Your task to perform on an android device: Search for Mexican restaurants on Maps Image 0: 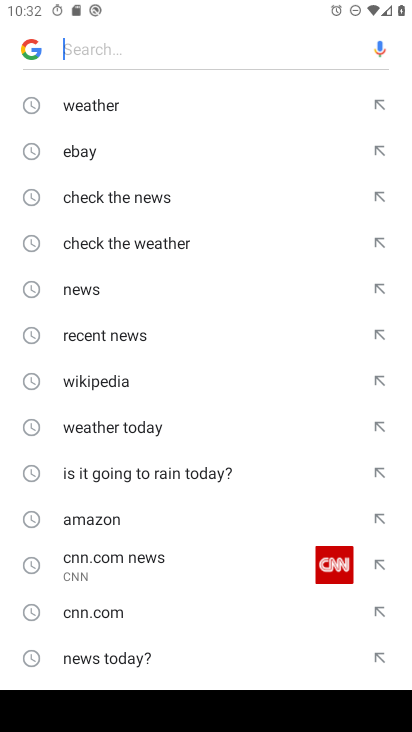
Step 0: press home button
Your task to perform on an android device: Search for Mexican restaurants on Maps Image 1: 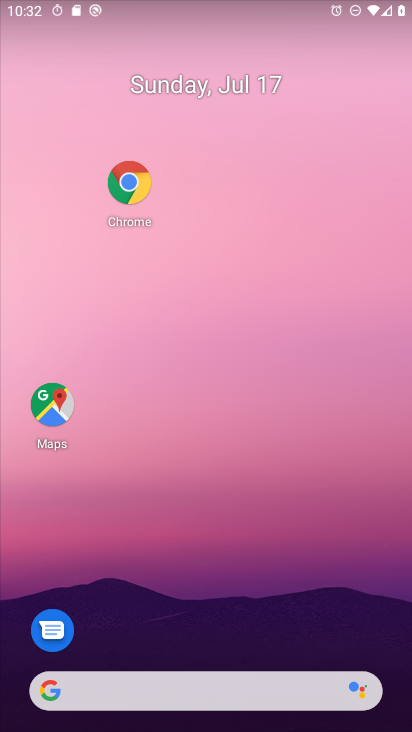
Step 1: drag from (344, 625) to (343, 357)
Your task to perform on an android device: Search for Mexican restaurants on Maps Image 2: 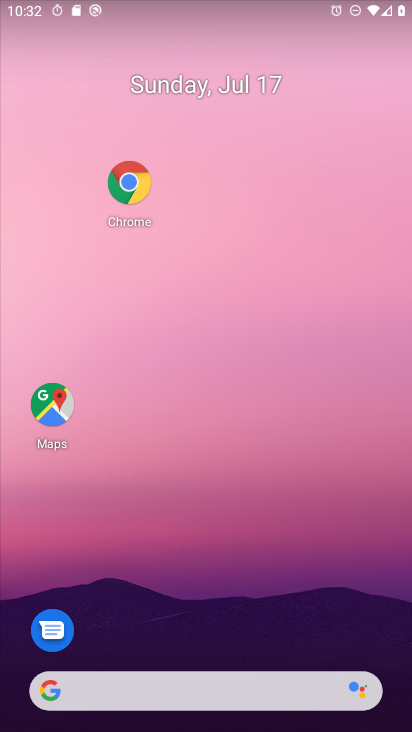
Step 2: click (114, 196)
Your task to perform on an android device: Search for Mexican restaurants on Maps Image 3: 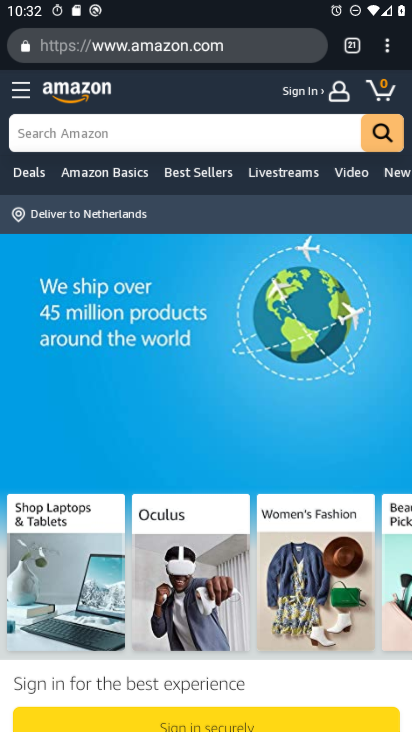
Step 3: click (385, 42)
Your task to perform on an android device: Search for Mexican restaurants on Maps Image 4: 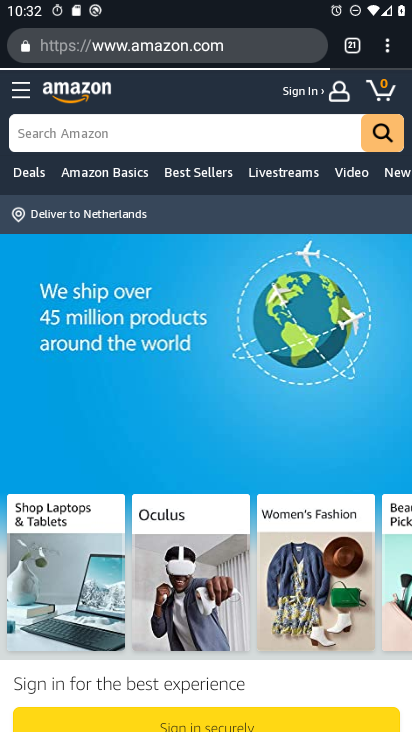
Step 4: press home button
Your task to perform on an android device: Search for Mexican restaurants on Maps Image 5: 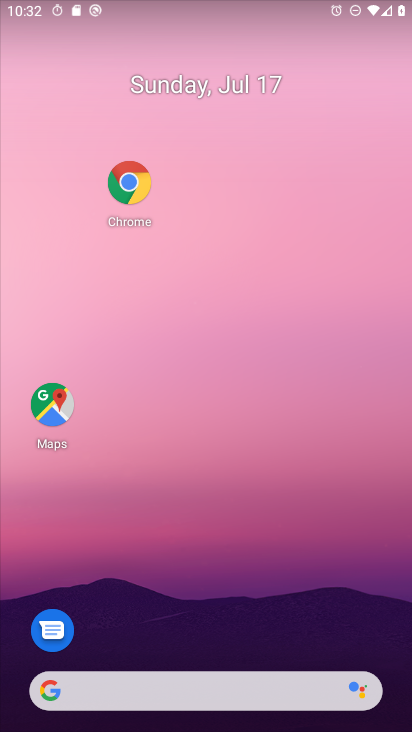
Step 5: drag from (214, 667) to (244, 112)
Your task to perform on an android device: Search for Mexican restaurants on Maps Image 6: 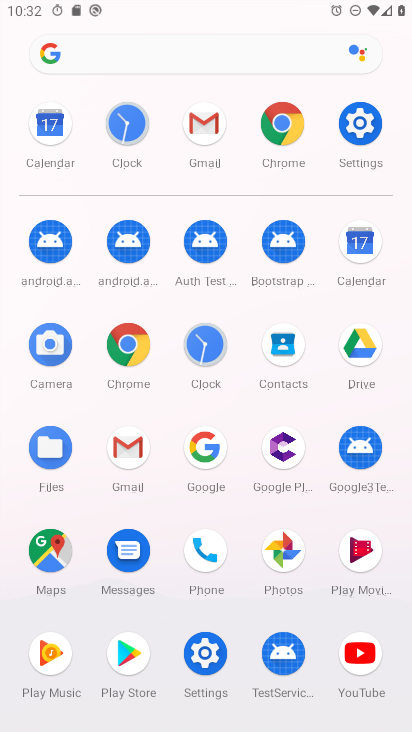
Step 6: click (46, 546)
Your task to perform on an android device: Search for Mexican restaurants on Maps Image 7: 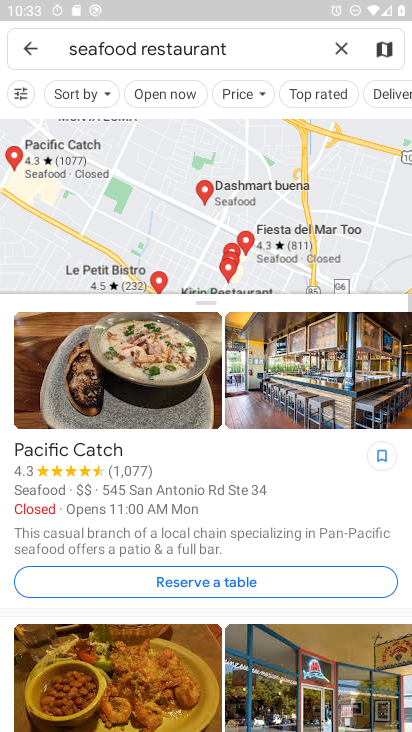
Step 7: click (351, 56)
Your task to perform on an android device: Search for Mexican restaurants on Maps Image 8: 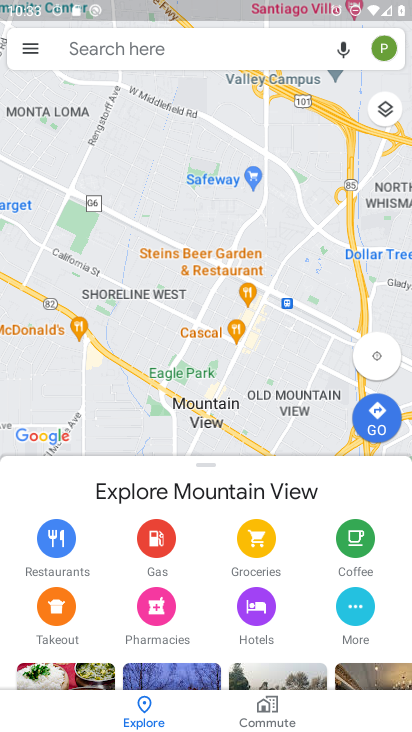
Step 8: click (115, 39)
Your task to perform on an android device: Search for Mexican restaurants on Maps Image 9: 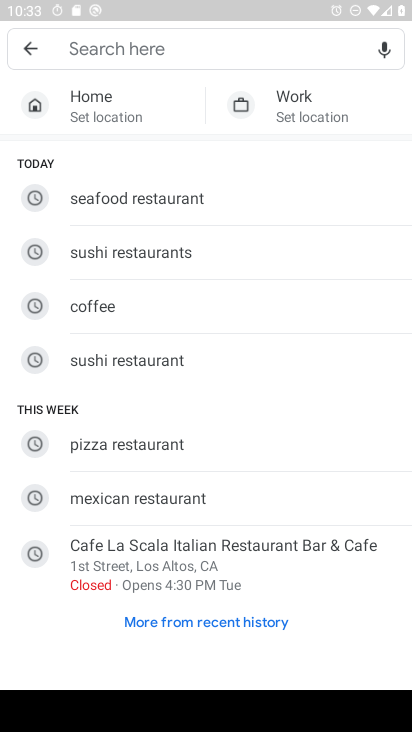
Step 9: click (162, 494)
Your task to perform on an android device: Search for Mexican restaurants on Maps Image 10: 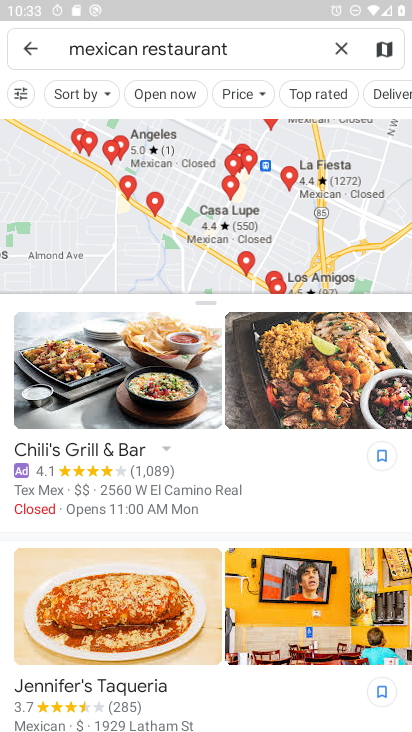
Step 10: task complete